Your task to perform on an android device: Open eBay Image 0: 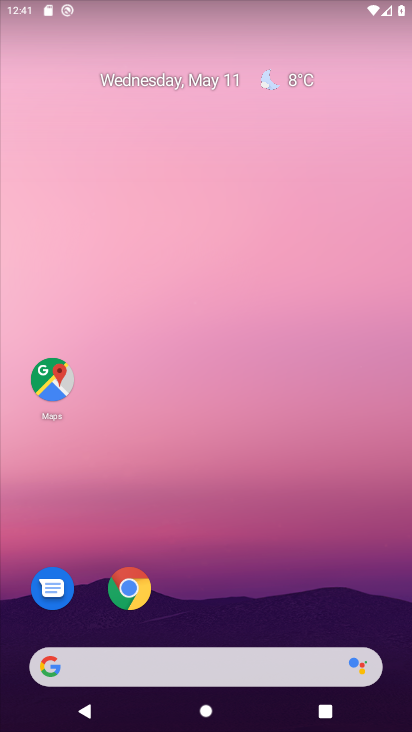
Step 0: click (128, 592)
Your task to perform on an android device: Open eBay Image 1: 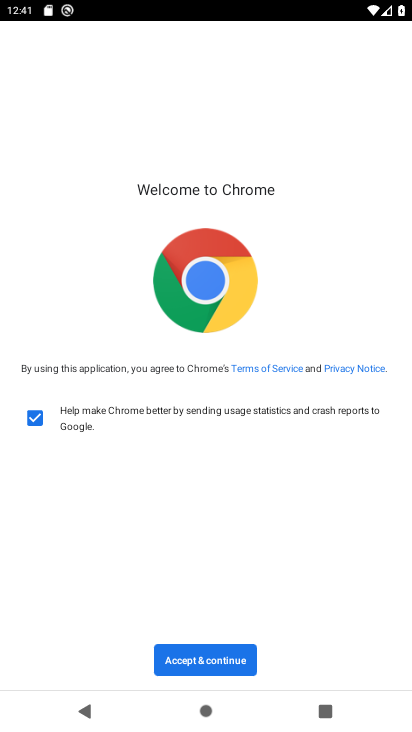
Step 1: click (215, 658)
Your task to perform on an android device: Open eBay Image 2: 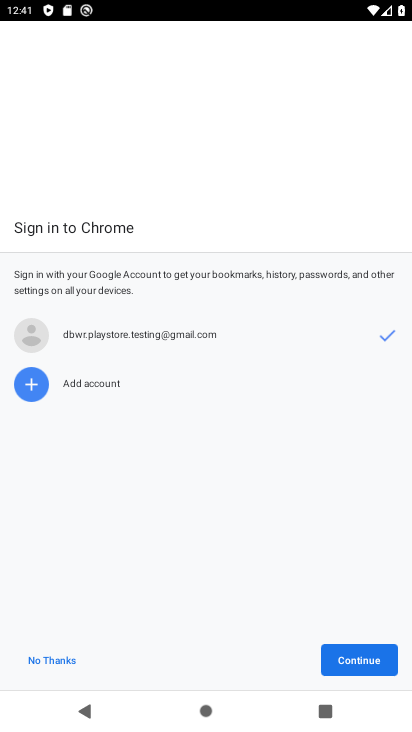
Step 2: click (349, 653)
Your task to perform on an android device: Open eBay Image 3: 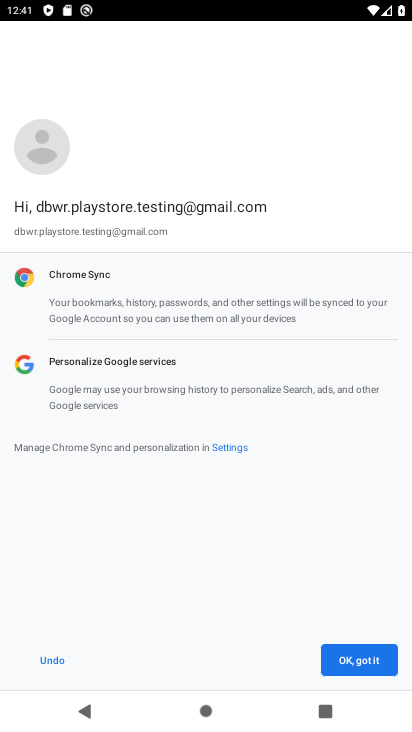
Step 3: click (372, 649)
Your task to perform on an android device: Open eBay Image 4: 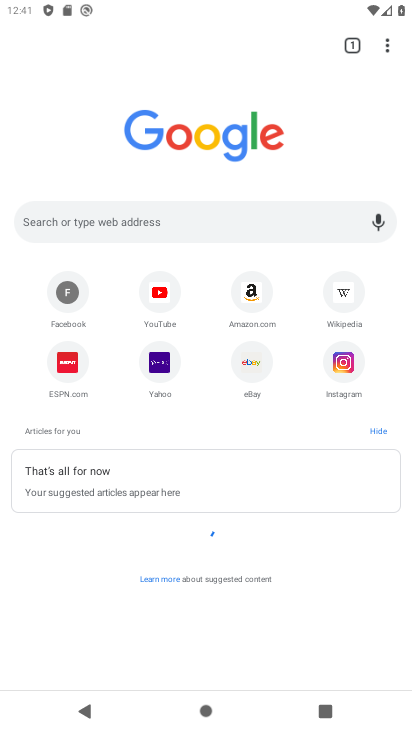
Step 4: click (253, 361)
Your task to perform on an android device: Open eBay Image 5: 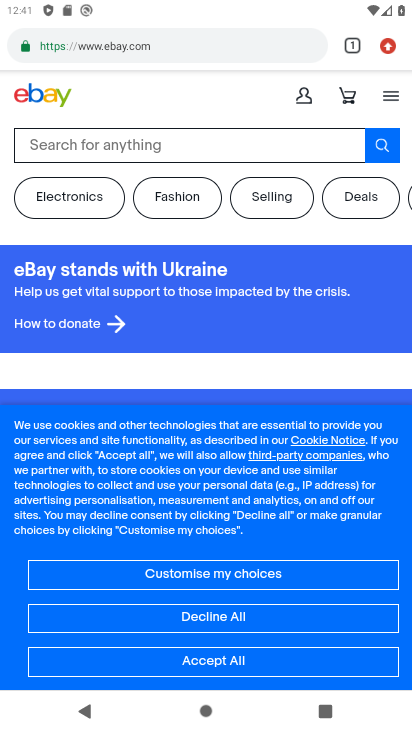
Step 5: task complete